Your task to perform on an android device: Search for Italian restaurants on Maps Image 0: 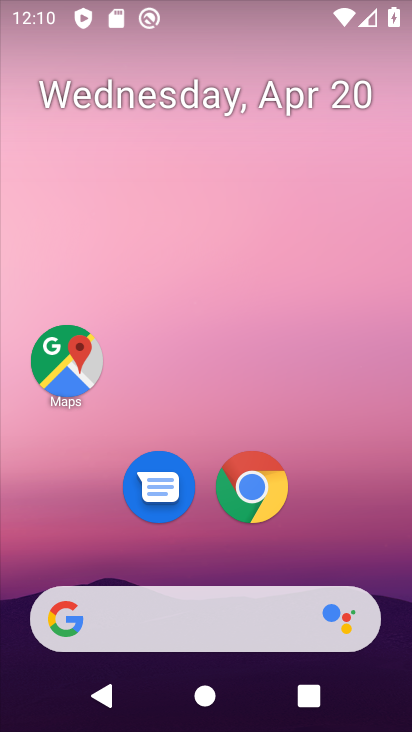
Step 0: drag from (359, 549) to (270, 42)
Your task to perform on an android device: Search for Italian restaurants on Maps Image 1: 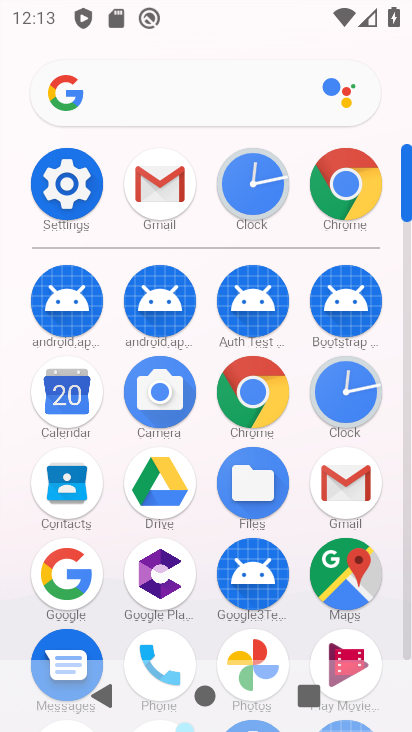
Step 1: click (350, 558)
Your task to perform on an android device: Search for Italian restaurants on Maps Image 2: 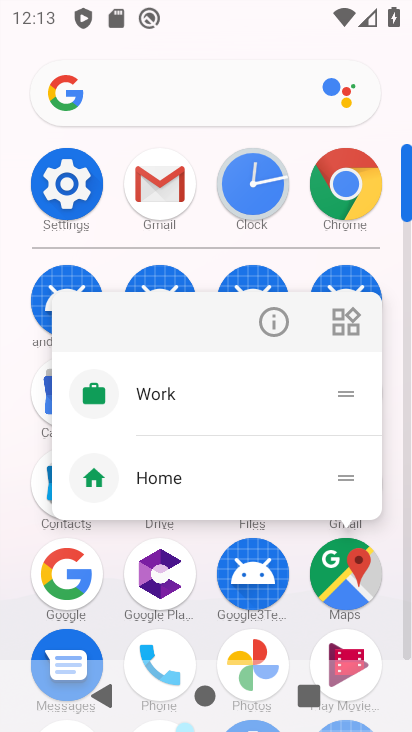
Step 2: click (353, 567)
Your task to perform on an android device: Search for Italian restaurants on Maps Image 3: 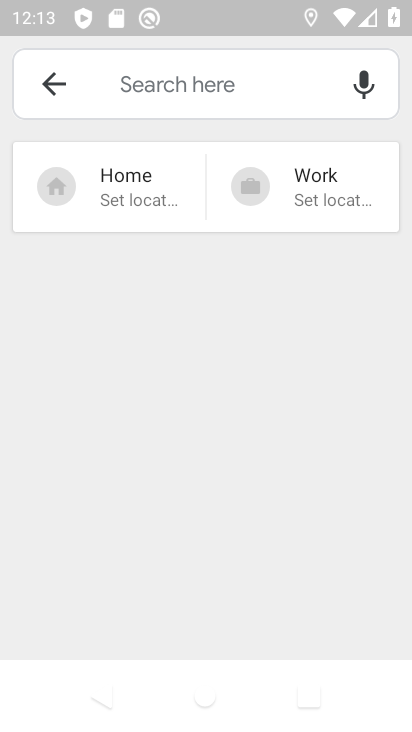
Step 3: click (184, 78)
Your task to perform on an android device: Search for Italian restaurants on Maps Image 4: 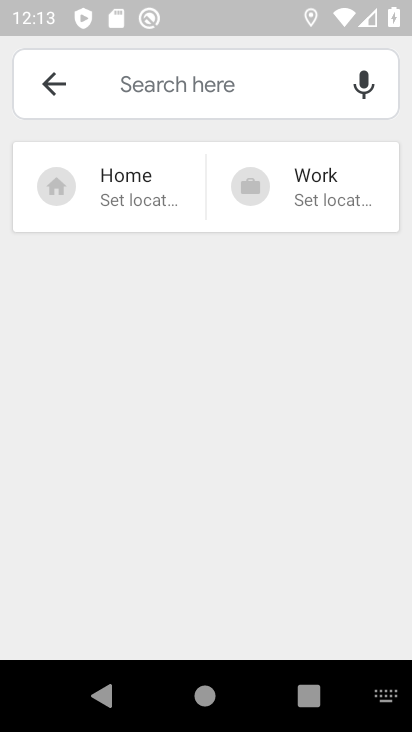
Step 4: task complete